Your task to perform on an android device: check out phone information Image 0: 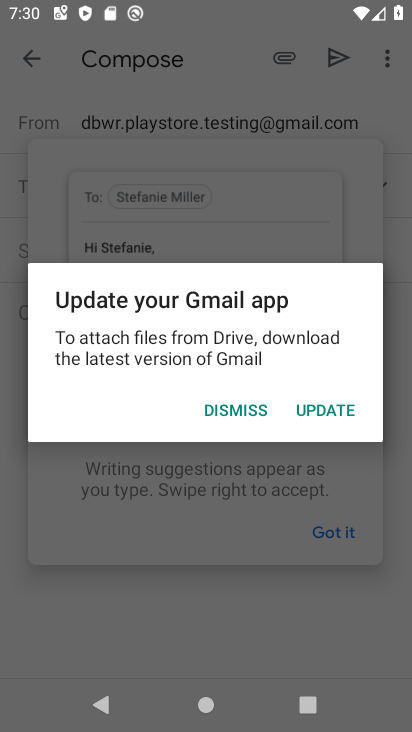
Step 0: press home button
Your task to perform on an android device: check out phone information Image 1: 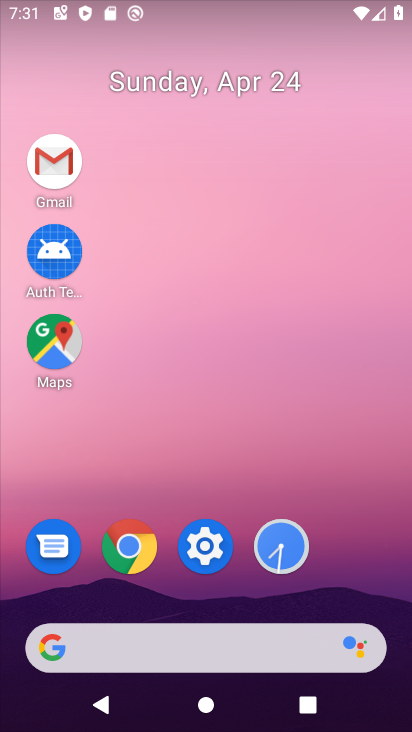
Step 1: click (212, 550)
Your task to perform on an android device: check out phone information Image 2: 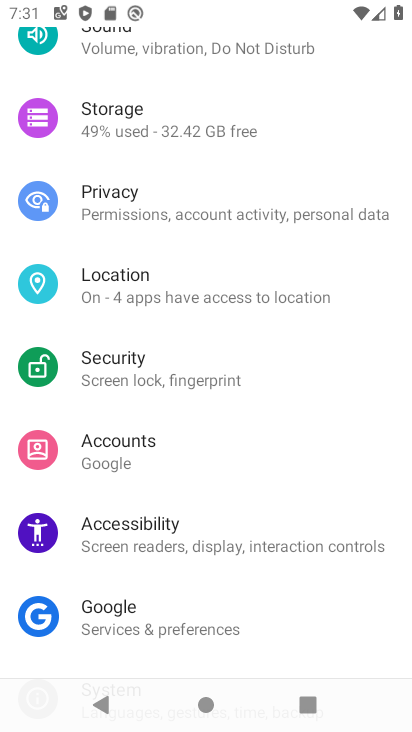
Step 2: drag from (257, 582) to (217, 17)
Your task to perform on an android device: check out phone information Image 3: 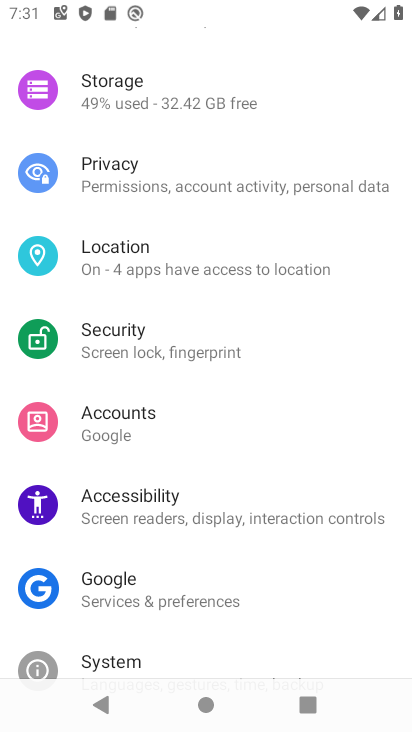
Step 3: drag from (275, 553) to (245, 14)
Your task to perform on an android device: check out phone information Image 4: 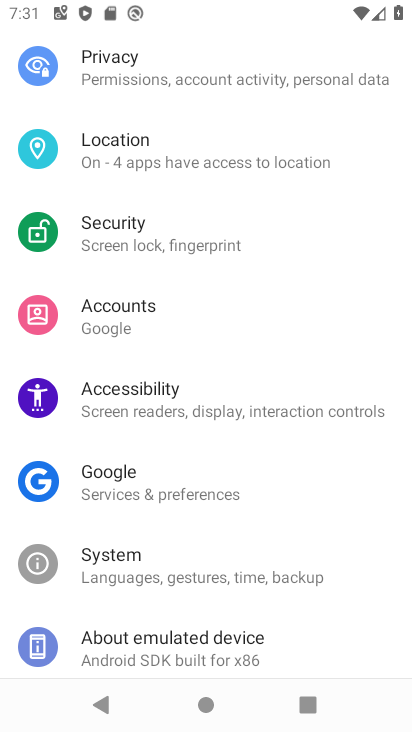
Step 4: click (139, 638)
Your task to perform on an android device: check out phone information Image 5: 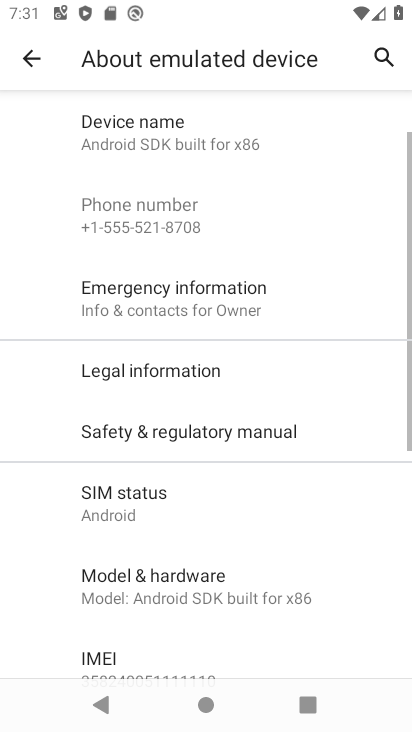
Step 5: task complete